Your task to perform on an android device: check data usage Image 0: 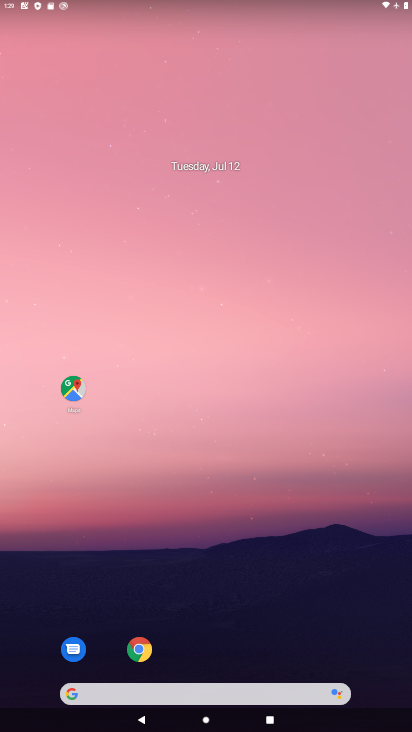
Step 0: drag from (207, 662) to (150, 293)
Your task to perform on an android device: check data usage Image 1: 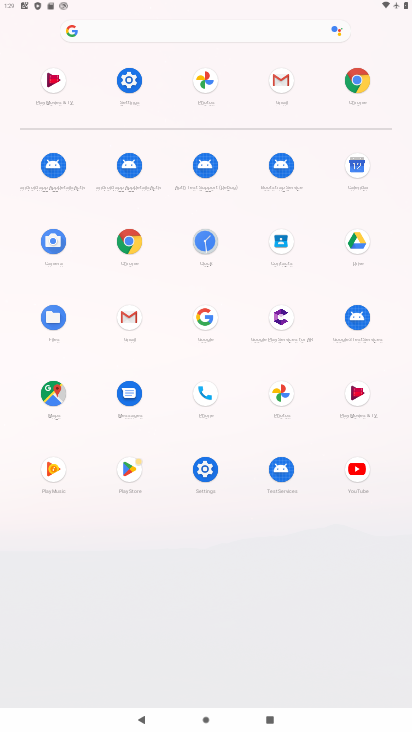
Step 1: click (114, 90)
Your task to perform on an android device: check data usage Image 2: 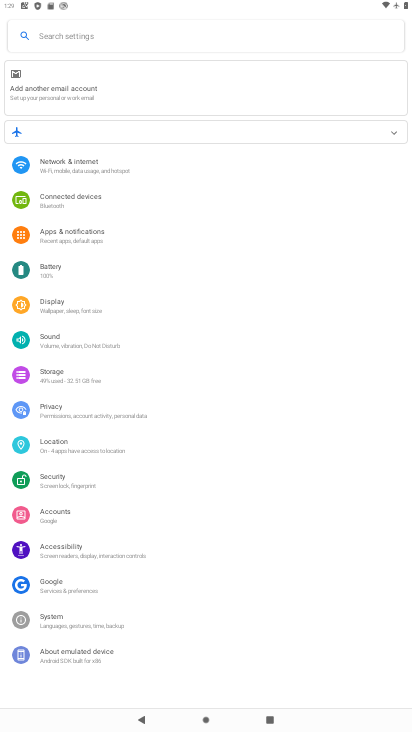
Step 2: click (87, 171)
Your task to perform on an android device: check data usage Image 3: 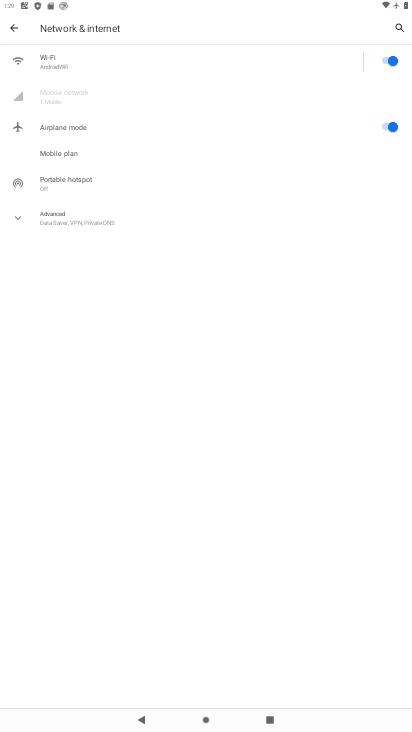
Step 3: task complete